Your task to perform on an android device: change the upload size in google photos Image 0: 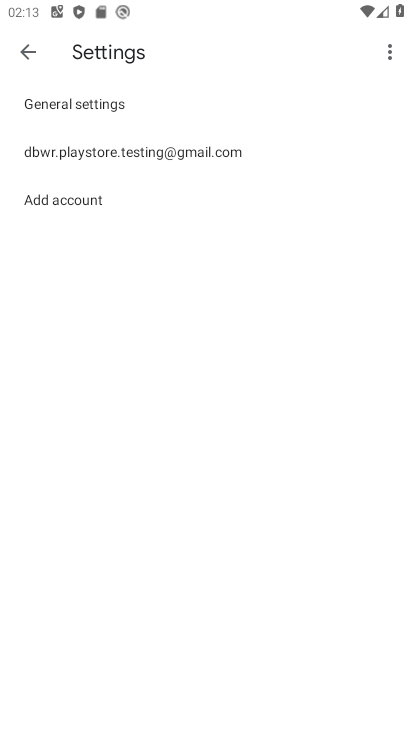
Step 0: press home button
Your task to perform on an android device: change the upload size in google photos Image 1: 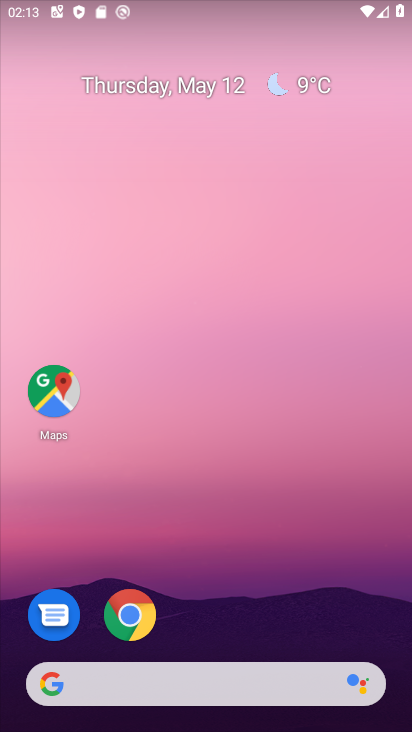
Step 1: drag from (182, 697) to (105, 23)
Your task to perform on an android device: change the upload size in google photos Image 2: 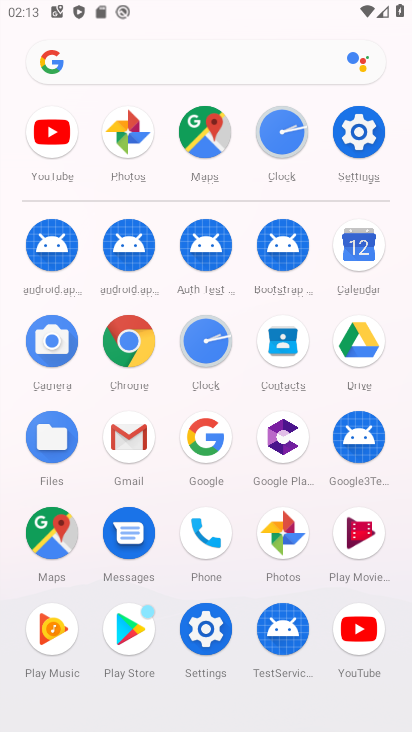
Step 2: click (268, 535)
Your task to perform on an android device: change the upload size in google photos Image 3: 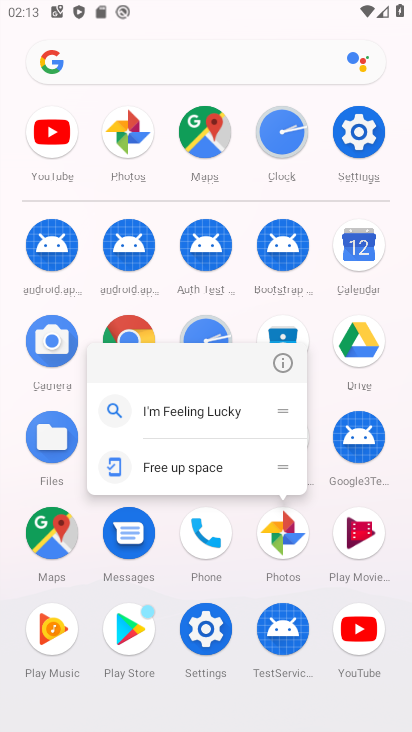
Step 3: click (271, 535)
Your task to perform on an android device: change the upload size in google photos Image 4: 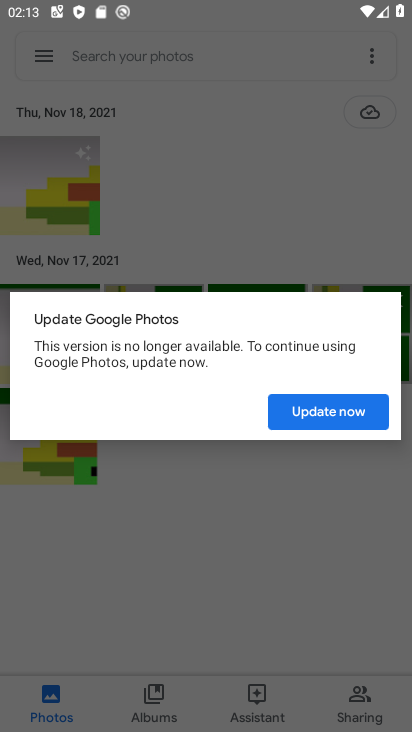
Step 4: click (312, 412)
Your task to perform on an android device: change the upload size in google photos Image 5: 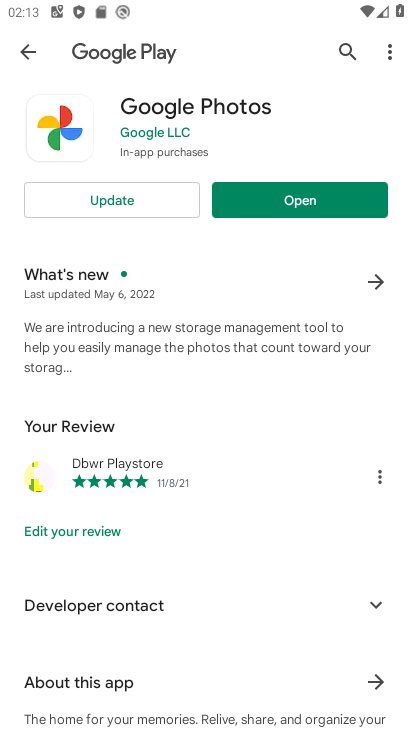
Step 5: click (144, 194)
Your task to perform on an android device: change the upload size in google photos Image 6: 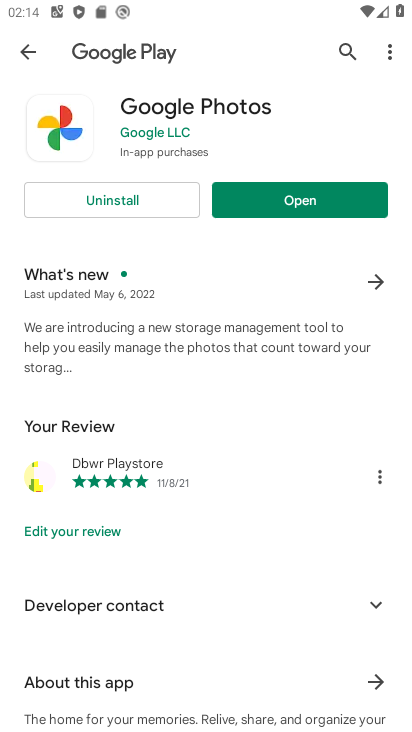
Step 6: click (247, 199)
Your task to perform on an android device: change the upload size in google photos Image 7: 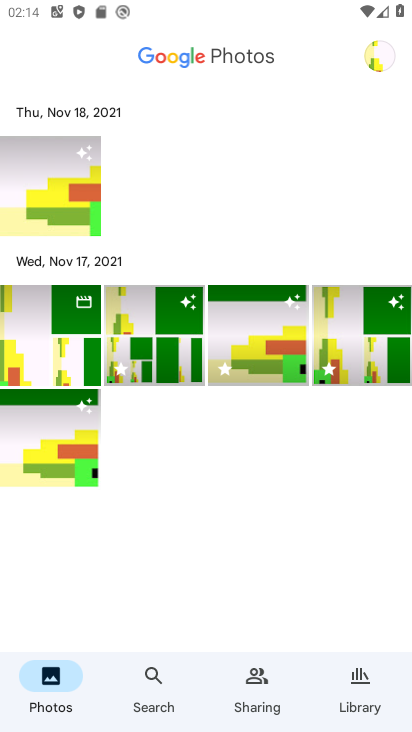
Step 7: click (380, 66)
Your task to perform on an android device: change the upload size in google photos Image 8: 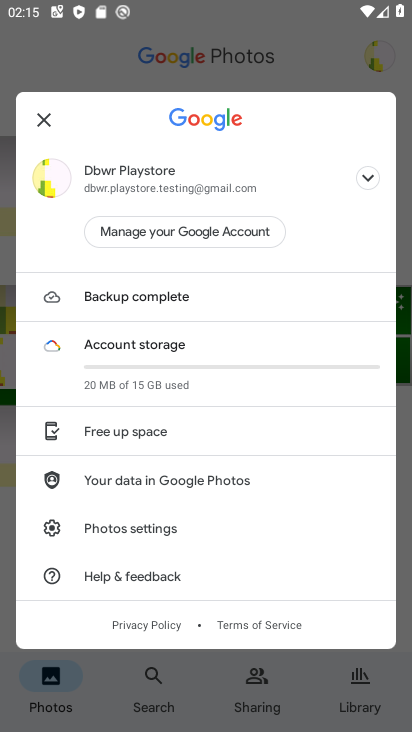
Step 8: click (144, 533)
Your task to perform on an android device: change the upload size in google photos Image 9: 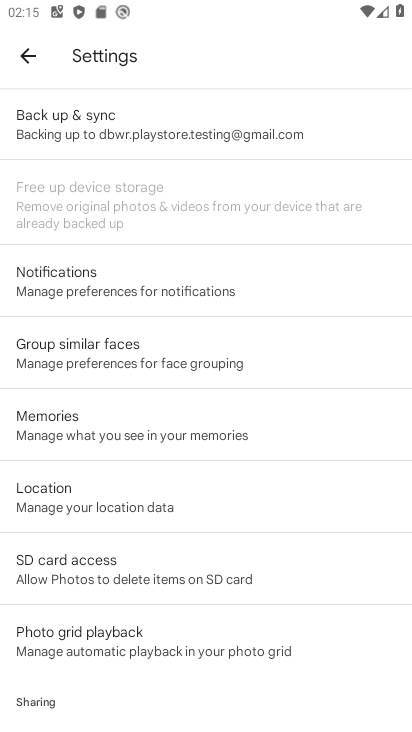
Step 9: click (111, 126)
Your task to perform on an android device: change the upload size in google photos Image 10: 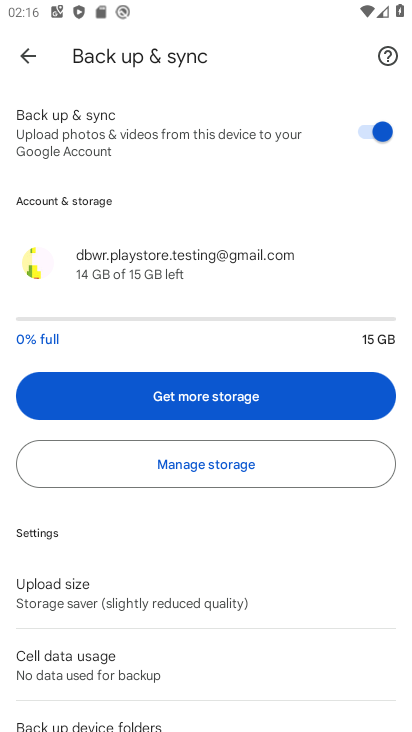
Step 10: click (147, 582)
Your task to perform on an android device: change the upload size in google photos Image 11: 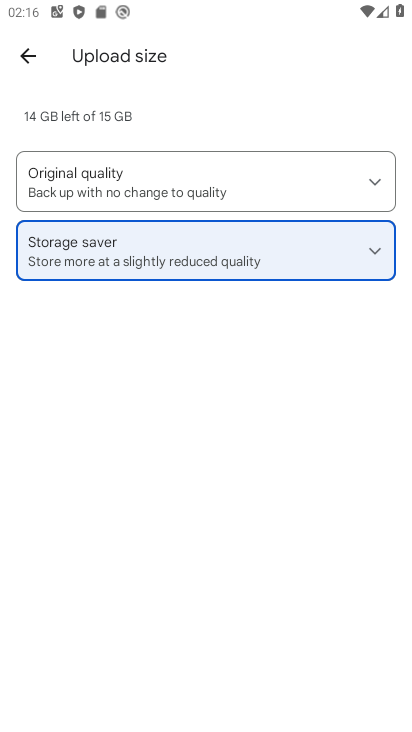
Step 11: click (370, 251)
Your task to perform on an android device: change the upload size in google photos Image 12: 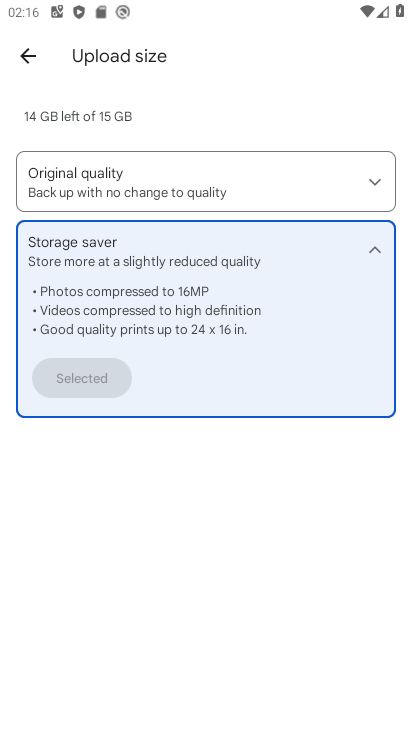
Step 12: click (376, 176)
Your task to perform on an android device: change the upload size in google photos Image 13: 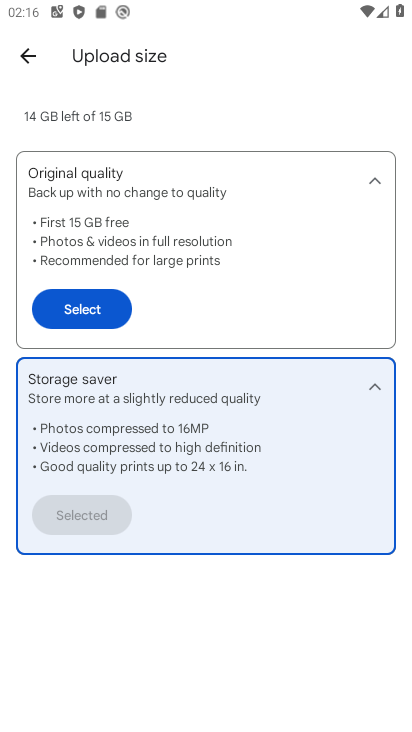
Step 13: click (77, 313)
Your task to perform on an android device: change the upload size in google photos Image 14: 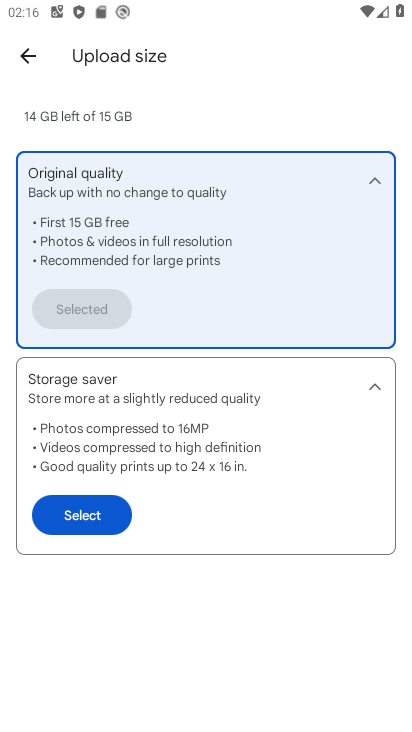
Step 14: task complete